Your task to perform on an android device: Go to Android settings Image 0: 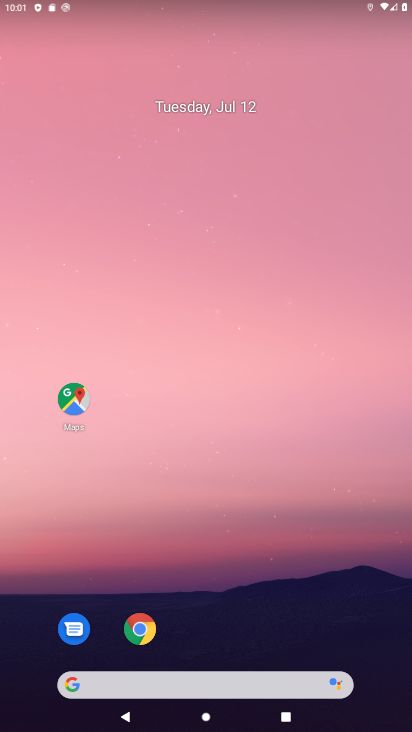
Step 0: drag from (291, 607) to (244, 54)
Your task to perform on an android device: Go to Android settings Image 1: 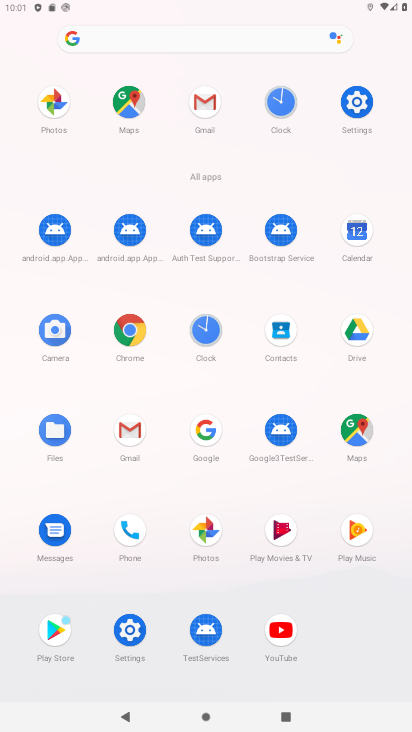
Step 1: click (349, 101)
Your task to perform on an android device: Go to Android settings Image 2: 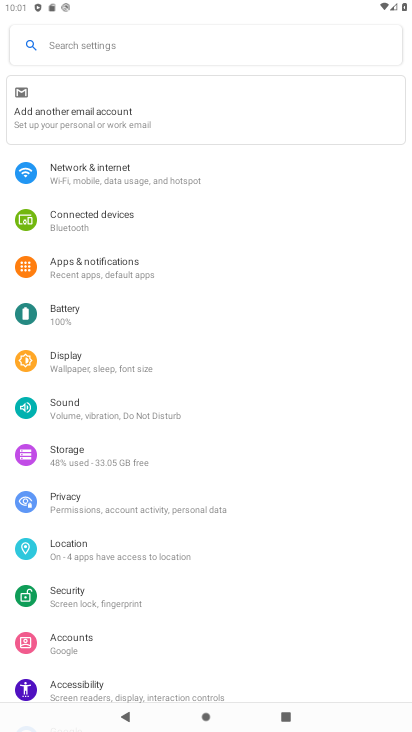
Step 2: task complete